Your task to perform on an android device: toggle translation in the chrome app Image 0: 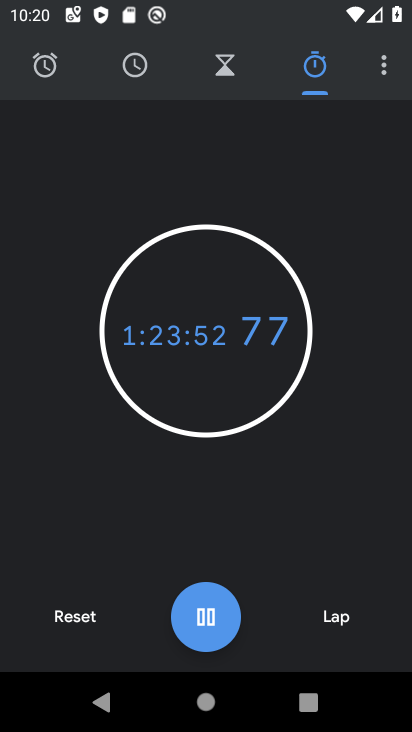
Step 0: press home button
Your task to perform on an android device: toggle translation in the chrome app Image 1: 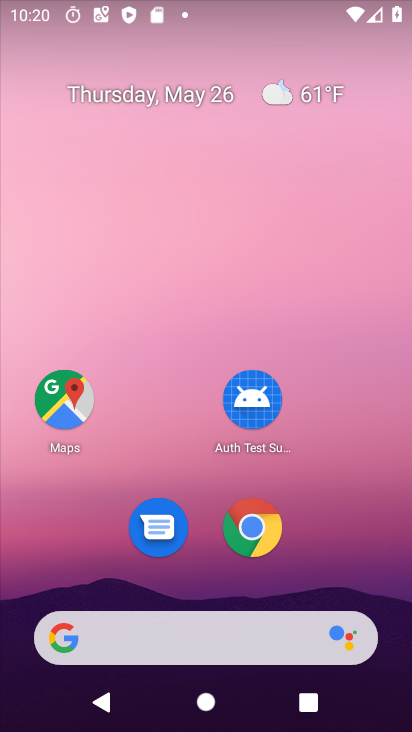
Step 1: drag from (336, 543) to (330, 14)
Your task to perform on an android device: toggle translation in the chrome app Image 2: 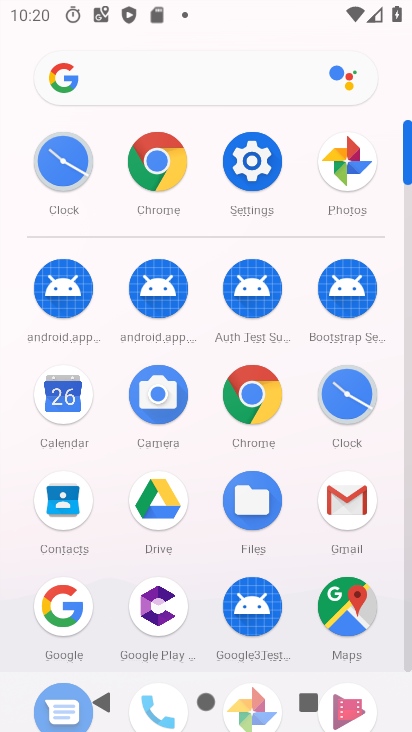
Step 2: click (171, 172)
Your task to perform on an android device: toggle translation in the chrome app Image 3: 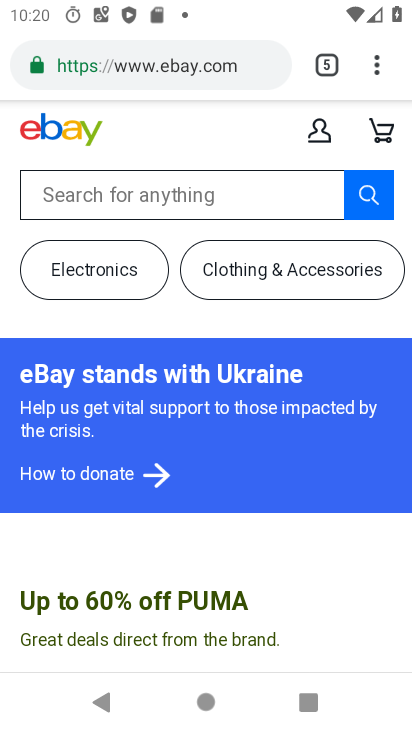
Step 3: drag from (365, 66) to (166, 576)
Your task to perform on an android device: toggle translation in the chrome app Image 4: 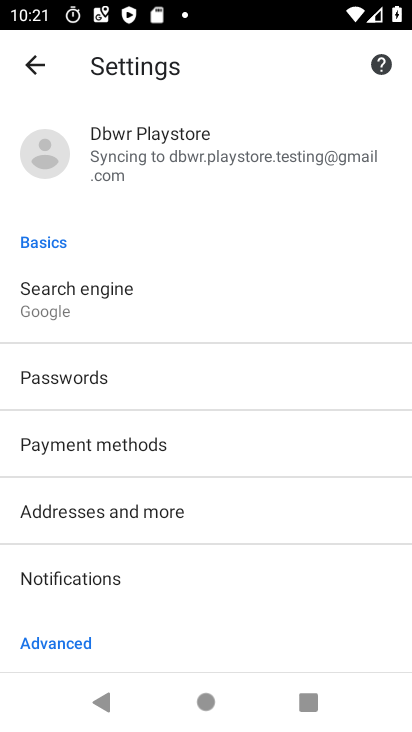
Step 4: drag from (198, 577) to (239, 224)
Your task to perform on an android device: toggle translation in the chrome app Image 5: 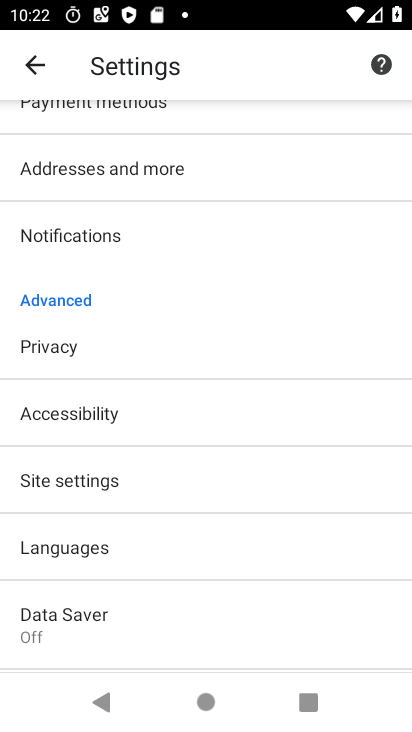
Step 5: drag from (129, 615) to (193, 230)
Your task to perform on an android device: toggle translation in the chrome app Image 6: 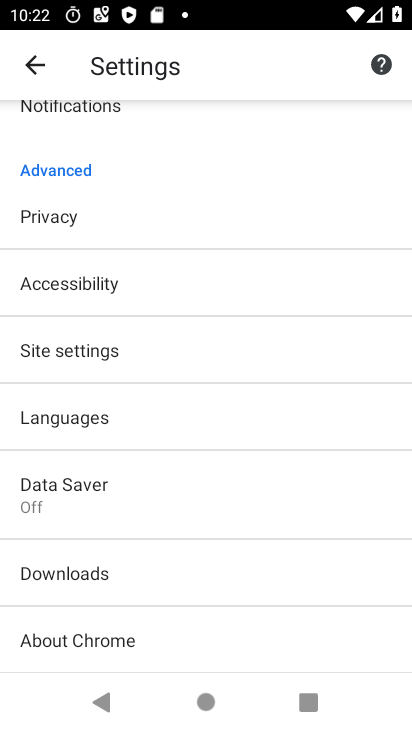
Step 6: drag from (144, 597) to (168, 334)
Your task to perform on an android device: toggle translation in the chrome app Image 7: 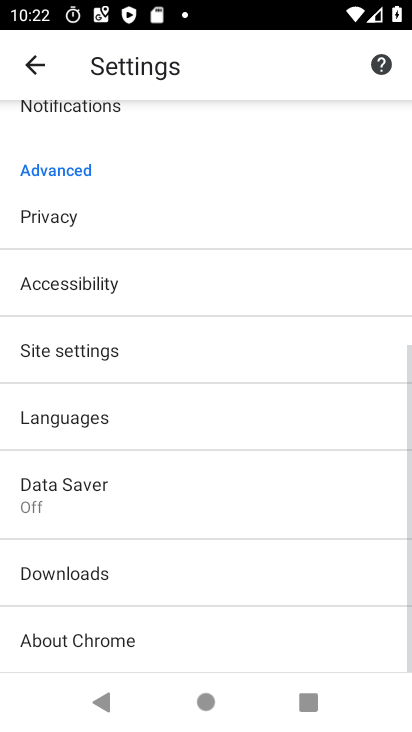
Step 7: click (152, 418)
Your task to perform on an android device: toggle translation in the chrome app Image 8: 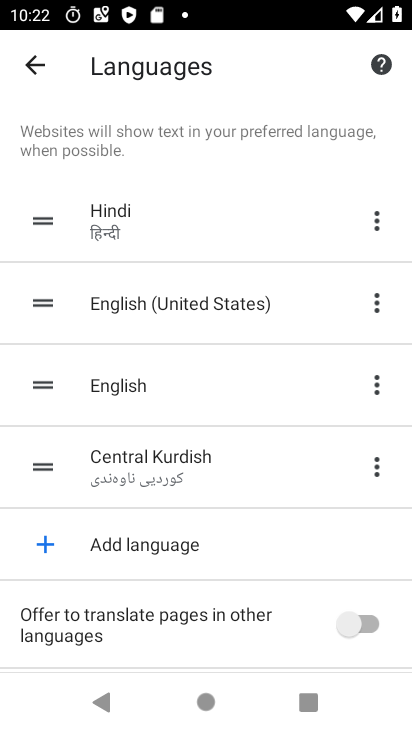
Step 8: click (358, 627)
Your task to perform on an android device: toggle translation in the chrome app Image 9: 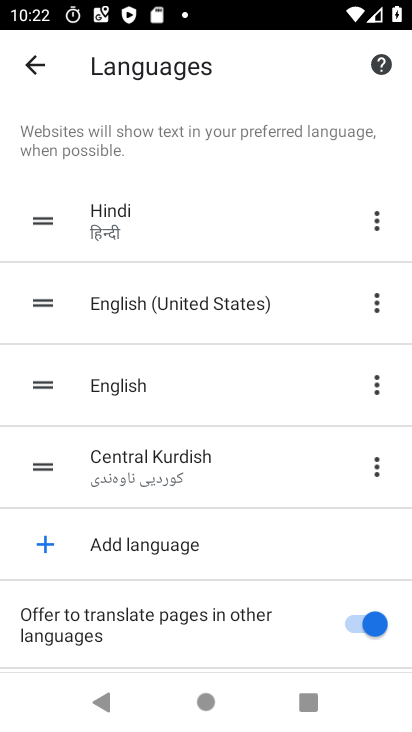
Step 9: task complete